Your task to perform on an android device: open a new tab in the chrome app Image 0: 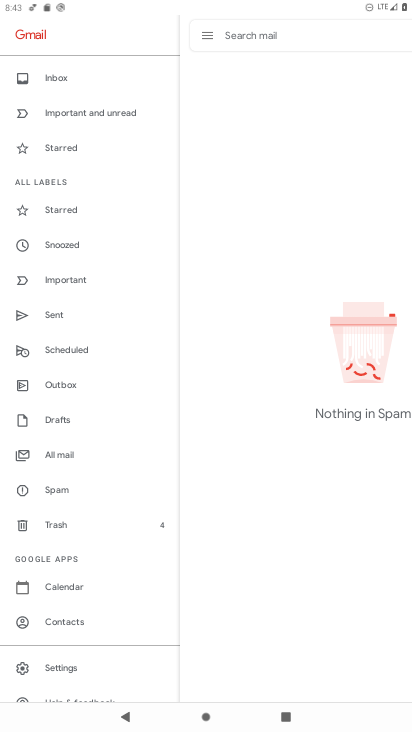
Step 0: press home button
Your task to perform on an android device: open a new tab in the chrome app Image 1: 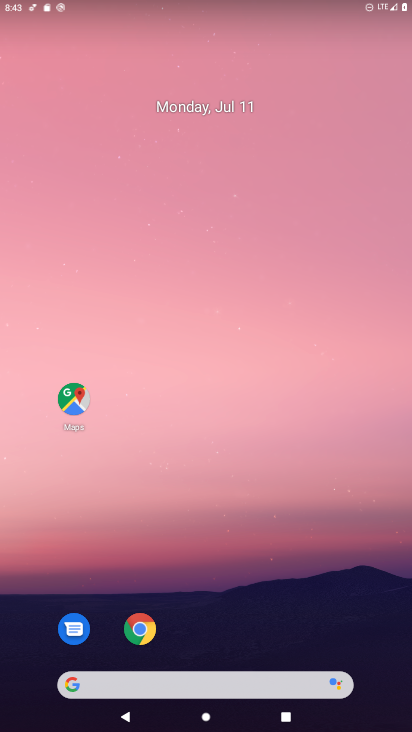
Step 1: click (137, 632)
Your task to perform on an android device: open a new tab in the chrome app Image 2: 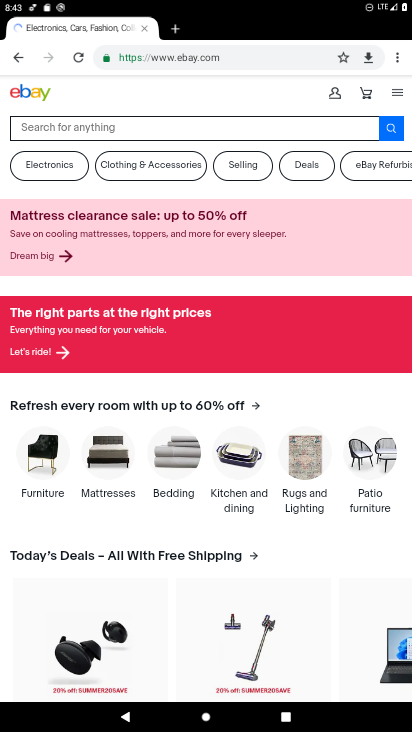
Step 2: click (177, 32)
Your task to perform on an android device: open a new tab in the chrome app Image 3: 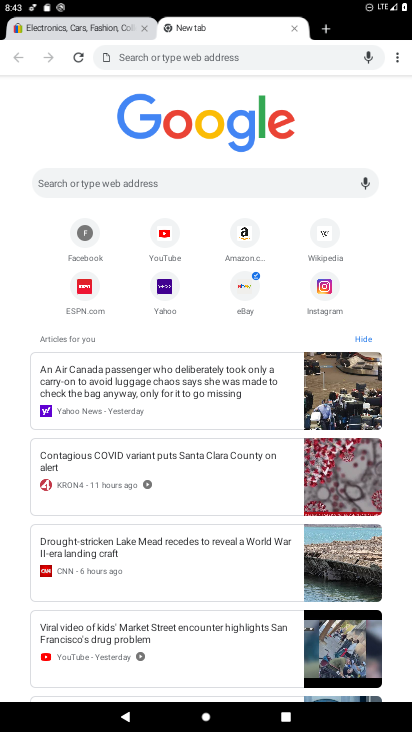
Step 3: task complete